Your task to perform on an android device: Is it going to rain this weekend? Image 0: 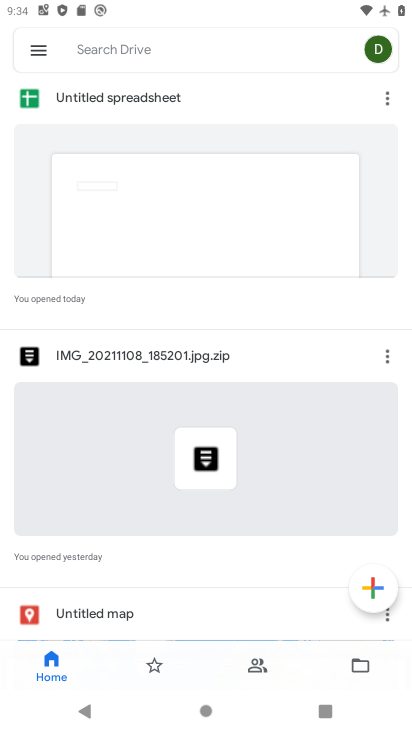
Step 0: press home button
Your task to perform on an android device: Is it going to rain this weekend? Image 1: 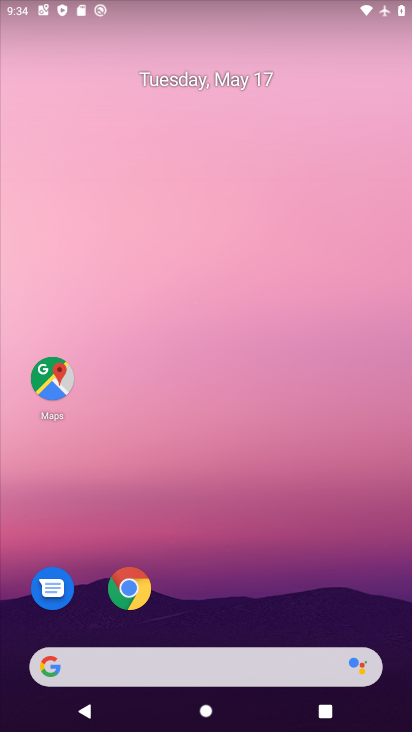
Step 1: click (220, 665)
Your task to perform on an android device: Is it going to rain this weekend? Image 2: 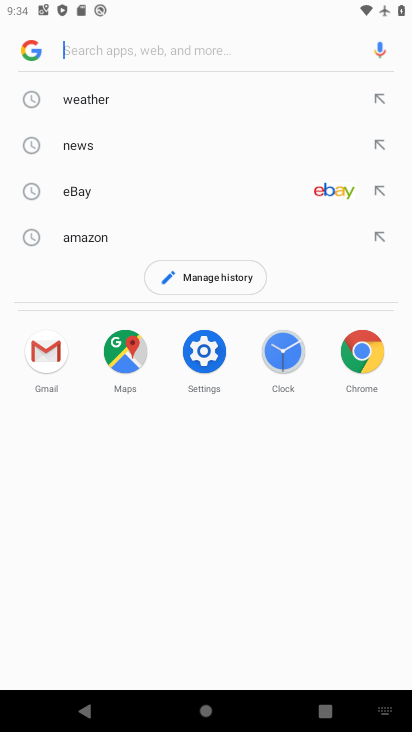
Step 2: click (106, 106)
Your task to perform on an android device: Is it going to rain this weekend? Image 3: 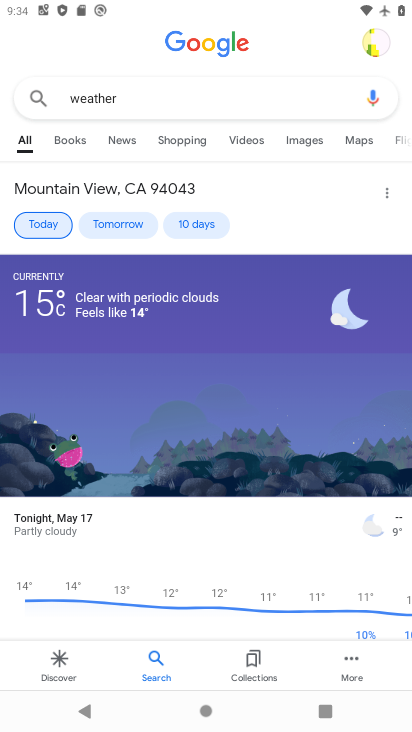
Step 3: click (193, 244)
Your task to perform on an android device: Is it going to rain this weekend? Image 4: 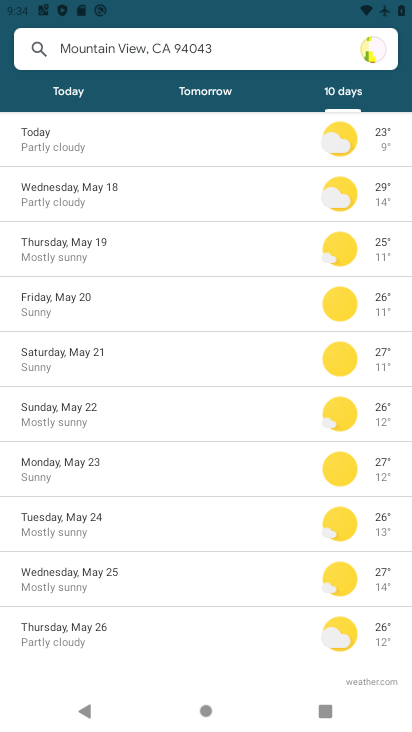
Step 4: task complete